Your task to perform on an android device: Open the calendar and show me this week's events Image 0: 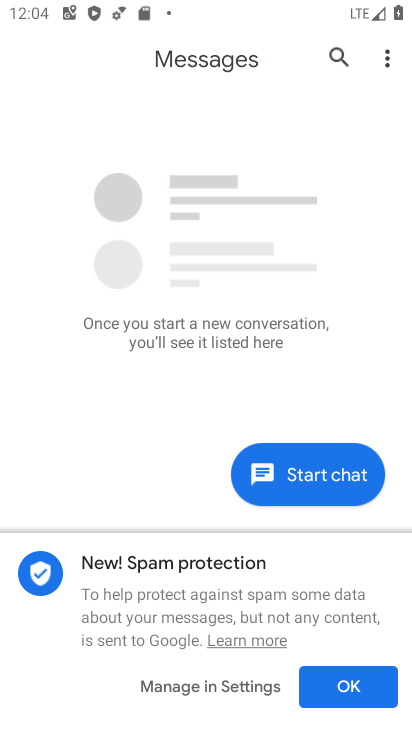
Step 0: press home button
Your task to perform on an android device: Open the calendar and show me this week's events Image 1: 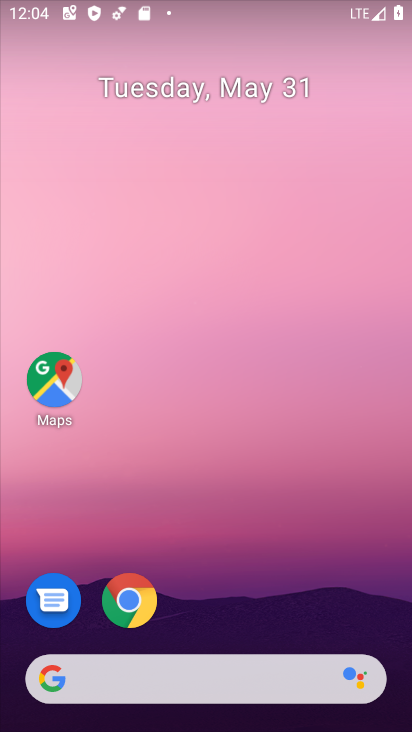
Step 1: drag from (216, 729) to (217, 559)
Your task to perform on an android device: Open the calendar and show me this week's events Image 2: 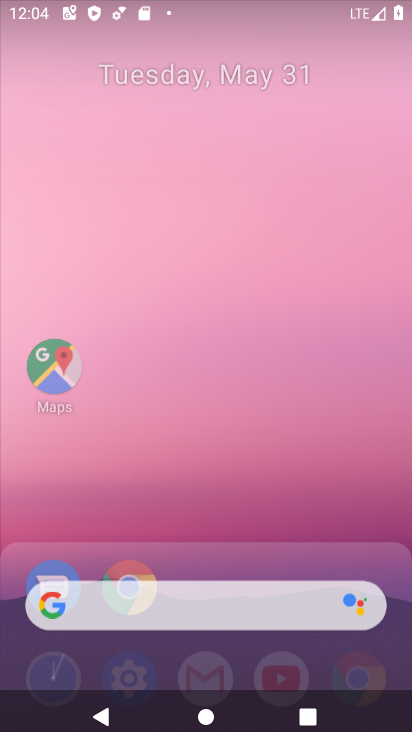
Step 2: drag from (208, 151) to (208, 36)
Your task to perform on an android device: Open the calendar and show me this week's events Image 3: 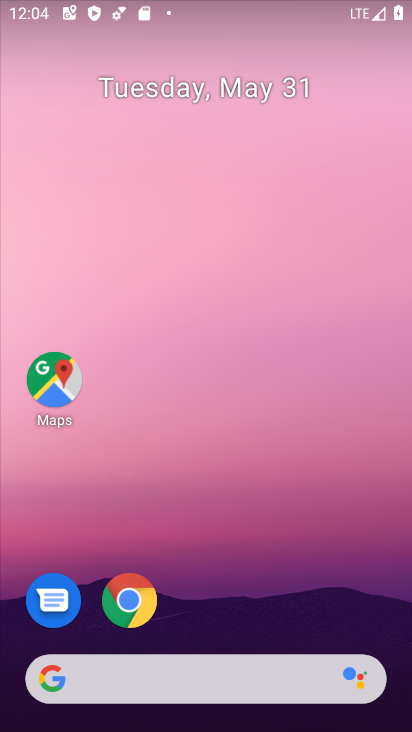
Step 3: drag from (216, 725) to (216, 49)
Your task to perform on an android device: Open the calendar and show me this week's events Image 4: 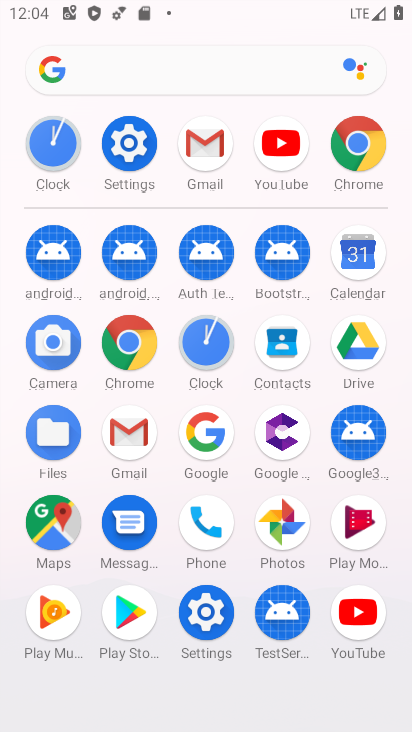
Step 4: click (355, 254)
Your task to perform on an android device: Open the calendar and show me this week's events Image 5: 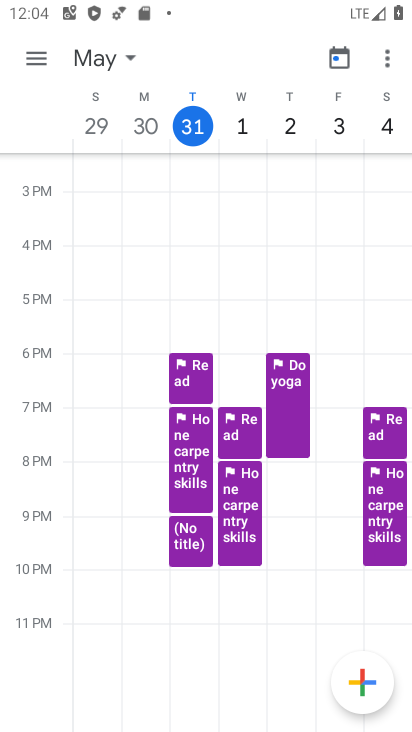
Step 5: click (152, 119)
Your task to perform on an android device: Open the calendar and show me this week's events Image 6: 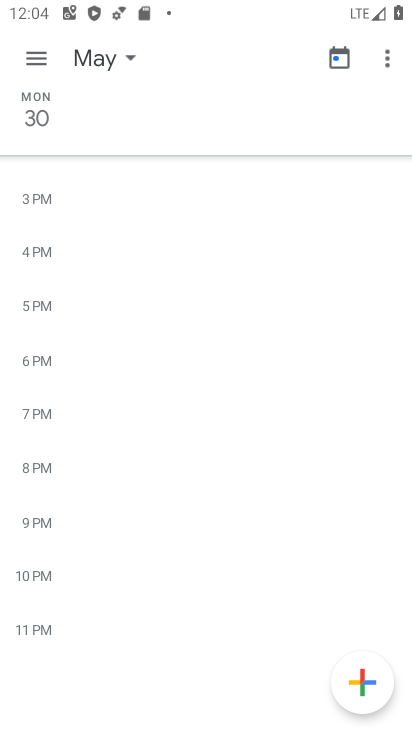
Step 6: click (122, 60)
Your task to perform on an android device: Open the calendar and show me this week's events Image 7: 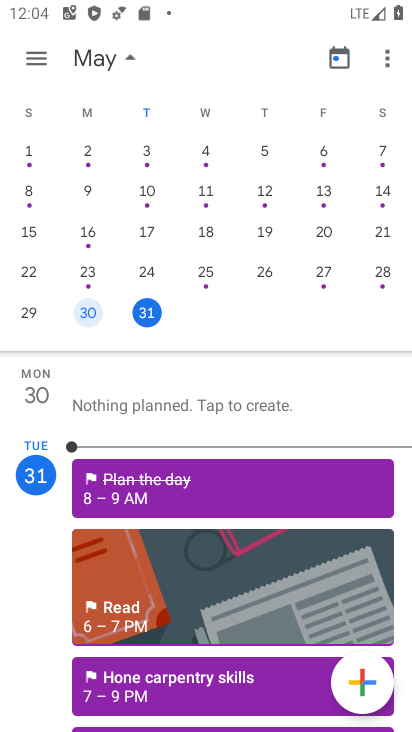
Step 7: click (33, 64)
Your task to perform on an android device: Open the calendar and show me this week's events Image 8: 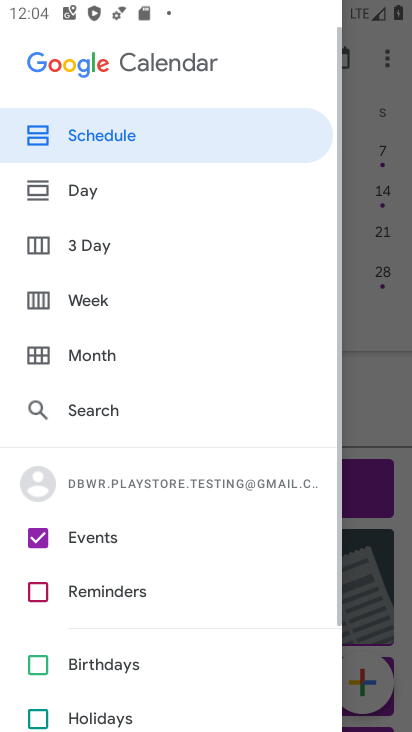
Step 8: click (82, 301)
Your task to perform on an android device: Open the calendar and show me this week's events Image 9: 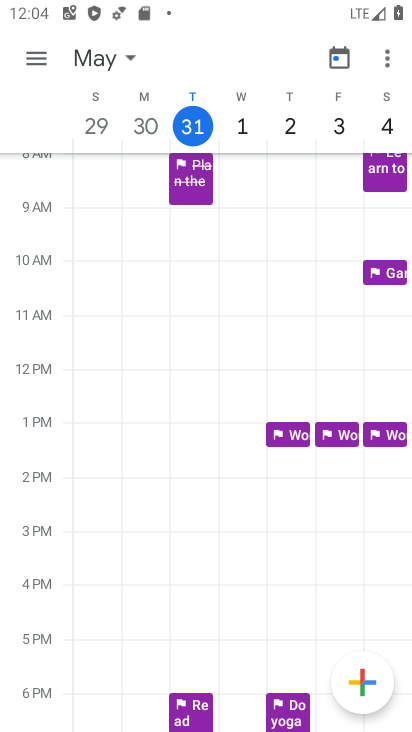
Step 9: task complete